Your task to perform on an android device: set default search engine in the chrome app Image 0: 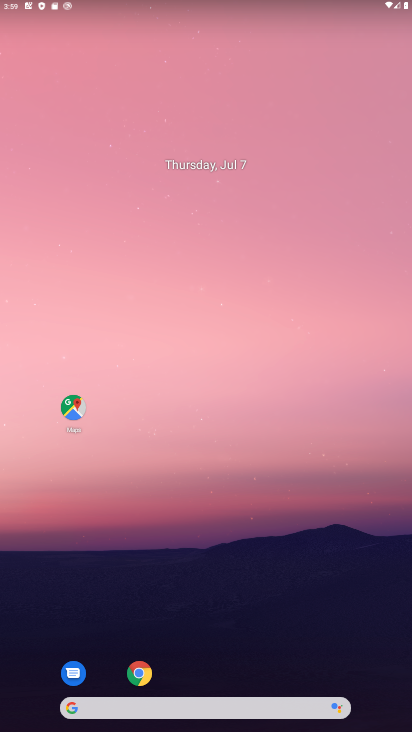
Step 0: click (147, 673)
Your task to perform on an android device: set default search engine in the chrome app Image 1: 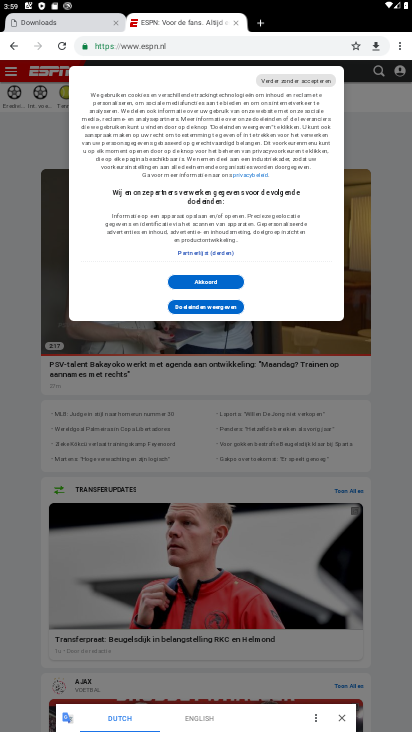
Step 1: click (398, 48)
Your task to perform on an android device: set default search engine in the chrome app Image 2: 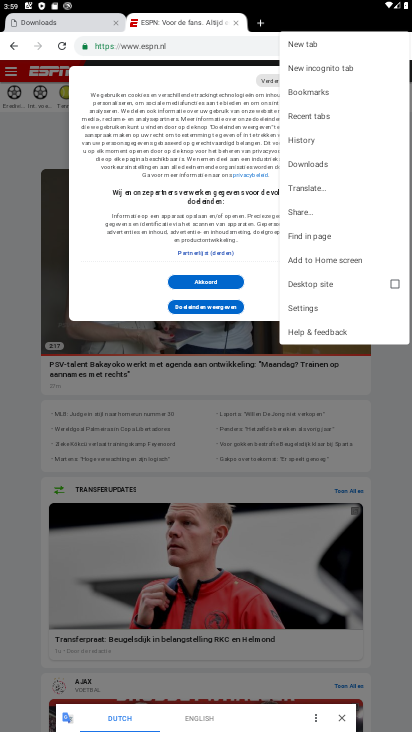
Step 2: click (302, 306)
Your task to perform on an android device: set default search engine in the chrome app Image 3: 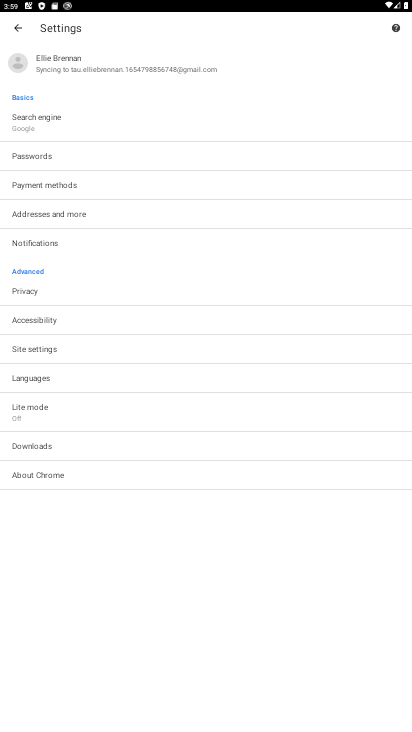
Step 3: click (79, 125)
Your task to perform on an android device: set default search engine in the chrome app Image 4: 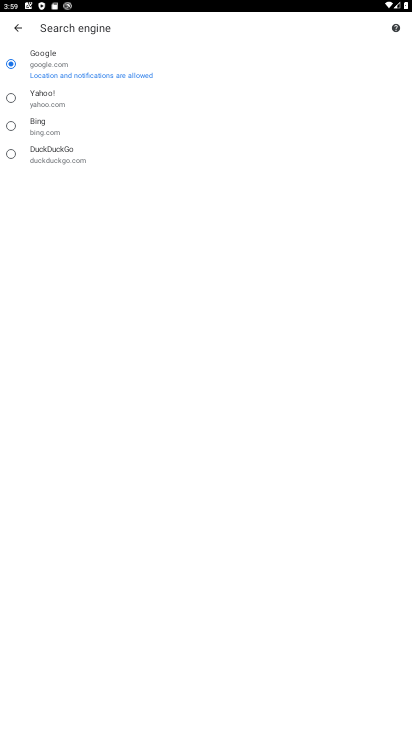
Step 4: click (14, 97)
Your task to perform on an android device: set default search engine in the chrome app Image 5: 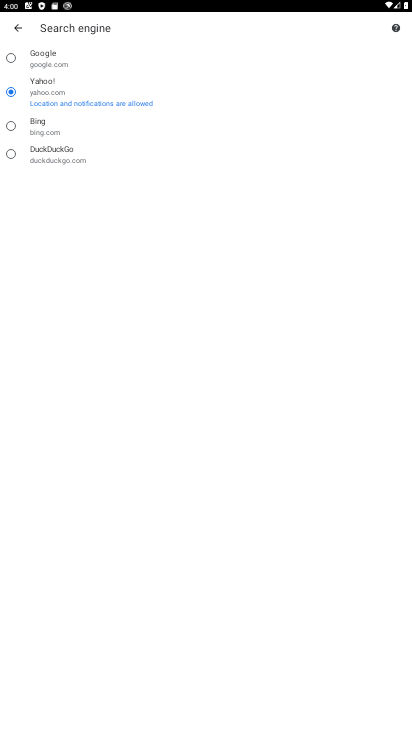
Step 5: task complete